Your task to perform on an android device: Open Google Maps Image 0: 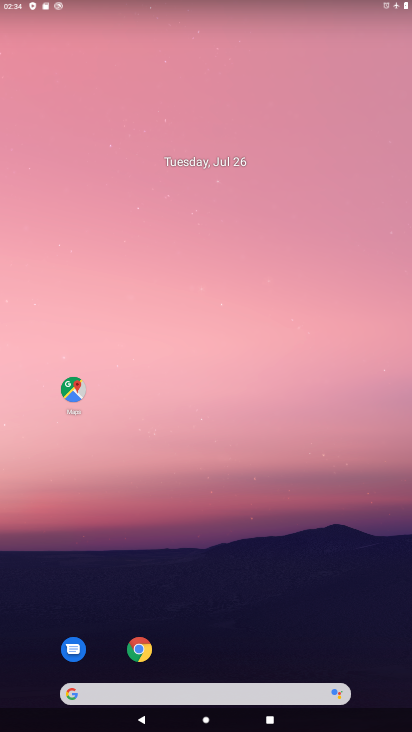
Step 0: click (70, 389)
Your task to perform on an android device: Open Google Maps Image 1: 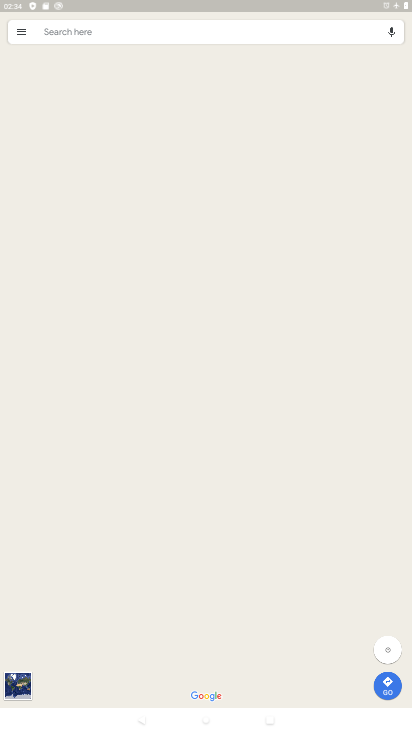
Step 1: task complete